Your task to perform on an android device: open the mobile data screen to see how much data has been used Image 0: 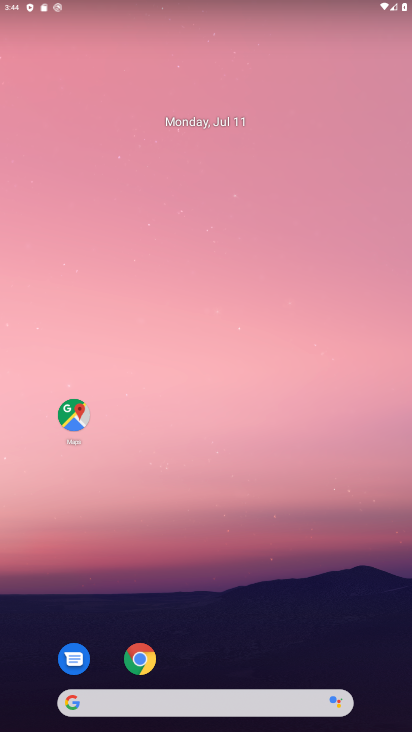
Step 0: drag from (187, 431) to (186, 204)
Your task to perform on an android device: open the mobile data screen to see how much data has been used Image 1: 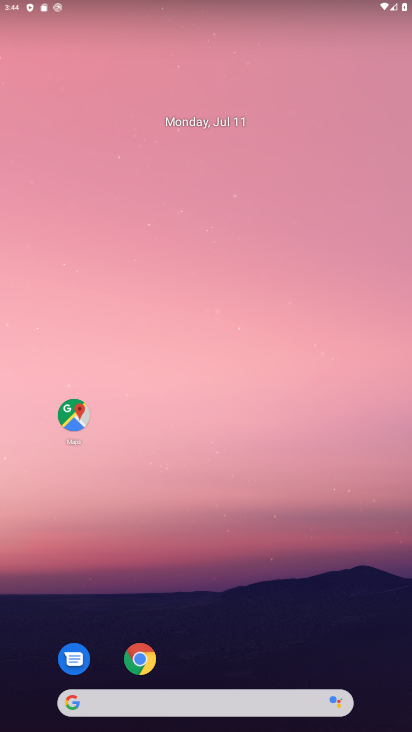
Step 1: drag from (185, 607) to (140, 259)
Your task to perform on an android device: open the mobile data screen to see how much data has been used Image 2: 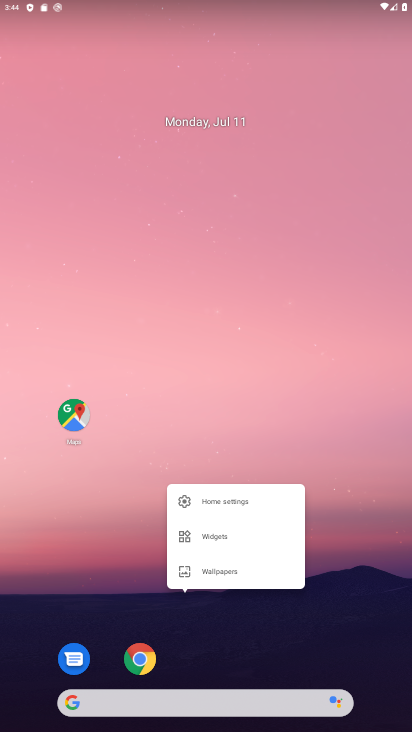
Step 2: click (216, 633)
Your task to perform on an android device: open the mobile data screen to see how much data has been used Image 3: 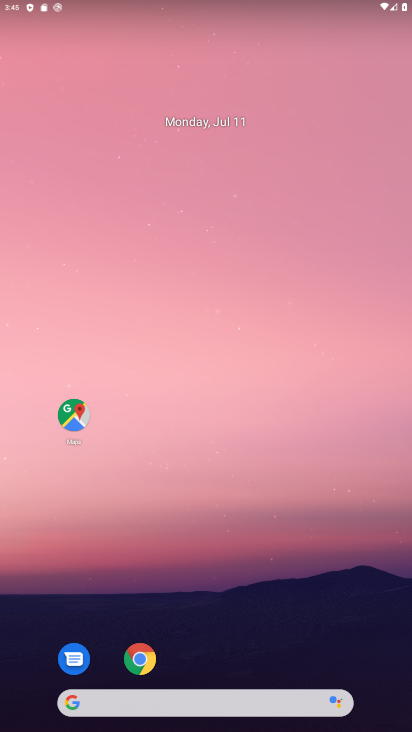
Step 3: drag from (206, 627) to (134, 40)
Your task to perform on an android device: open the mobile data screen to see how much data has been used Image 4: 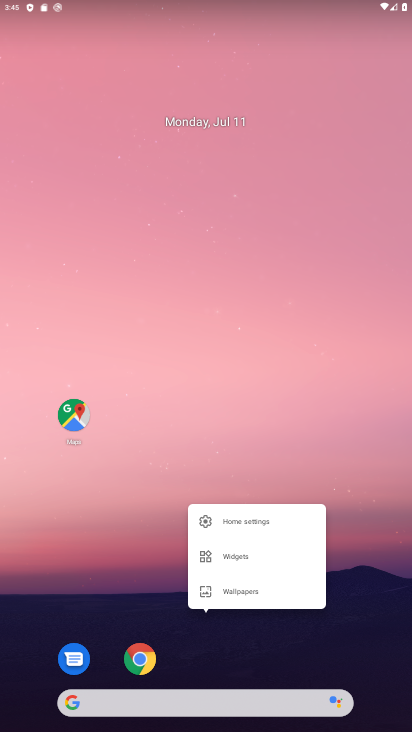
Step 4: click (209, 656)
Your task to perform on an android device: open the mobile data screen to see how much data has been used Image 5: 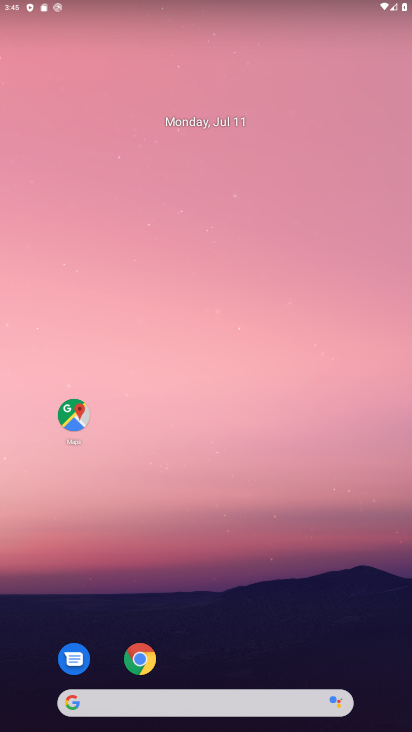
Step 5: drag from (209, 547) to (238, 52)
Your task to perform on an android device: open the mobile data screen to see how much data has been used Image 6: 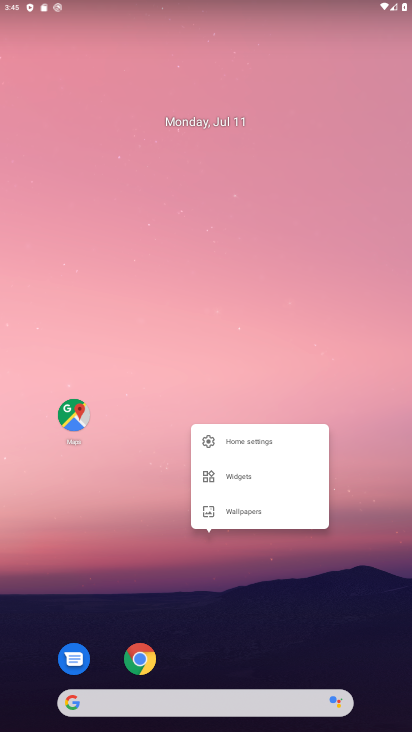
Step 6: click (194, 654)
Your task to perform on an android device: open the mobile data screen to see how much data has been used Image 7: 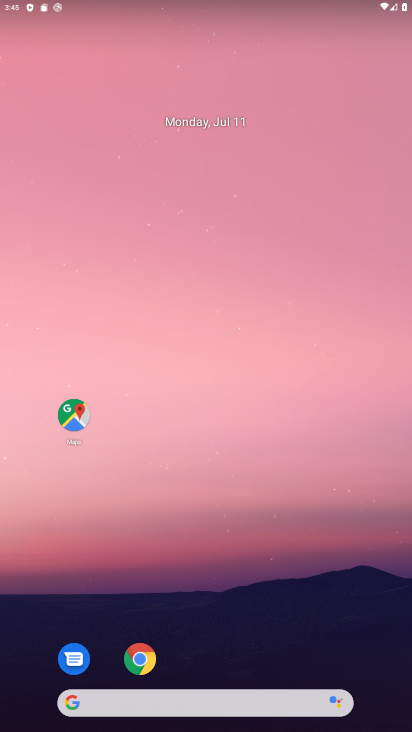
Step 7: drag from (174, 450) to (151, 86)
Your task to perform on an android device: open the mobile data screen to see how much data has been used Image 8: 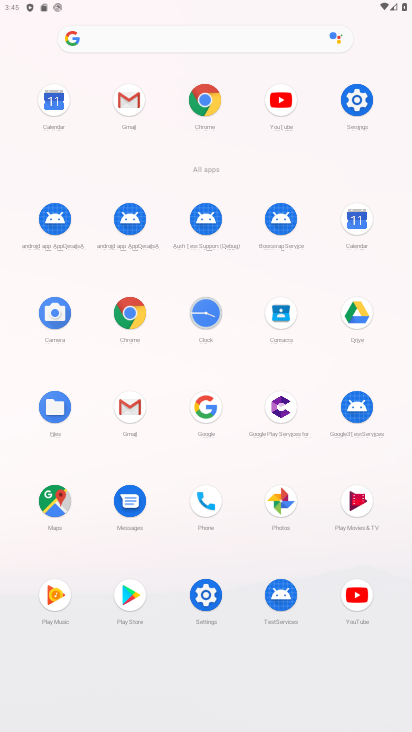
Step 8: click (358, 105)
Your task to perform on an android device: open the mobile data screen to see how much data has been used Image 9: 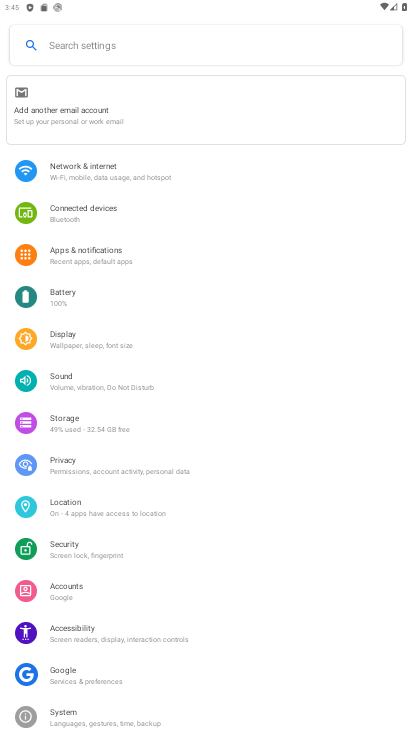
Step 9: click (62, 175)
Your task to perform on an android device: open the mobile data screen to see how much data has been used Image 10: 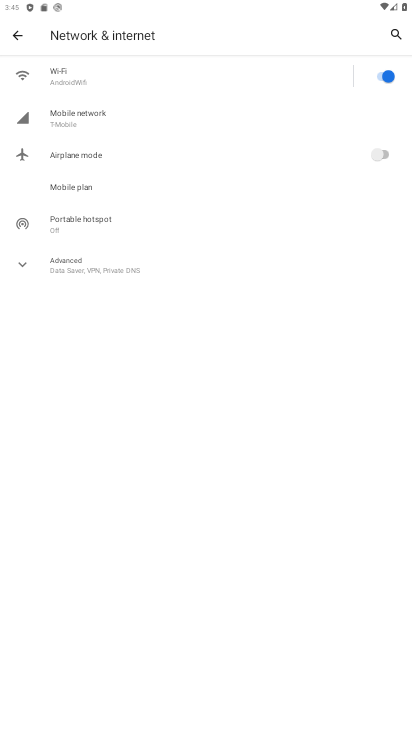
Step 10: click (96, 113)
Your task to perform on an android device: open the mobile data screen to see how much data has been used Image 11: 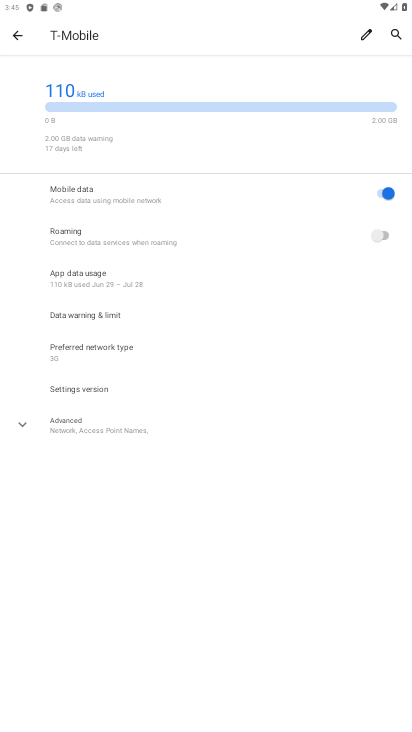
Step 11: task complete